Your task to perform on an android device: Go to CNN.com Image 0: 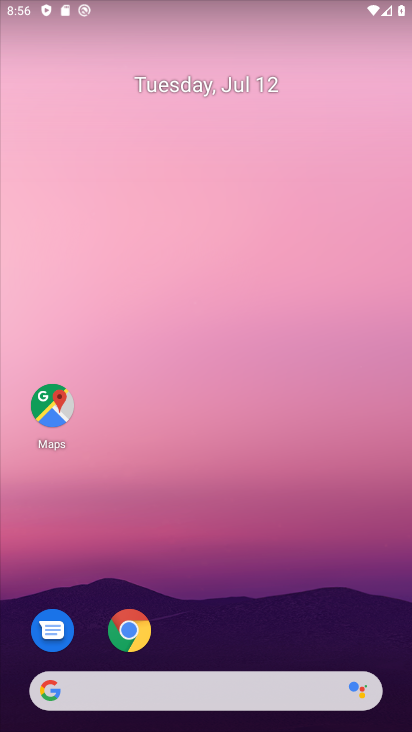
Step 0: drag from (278, 640) to (254, 158)
Your task to perform on an android device: Go to CNN.com Image 1: 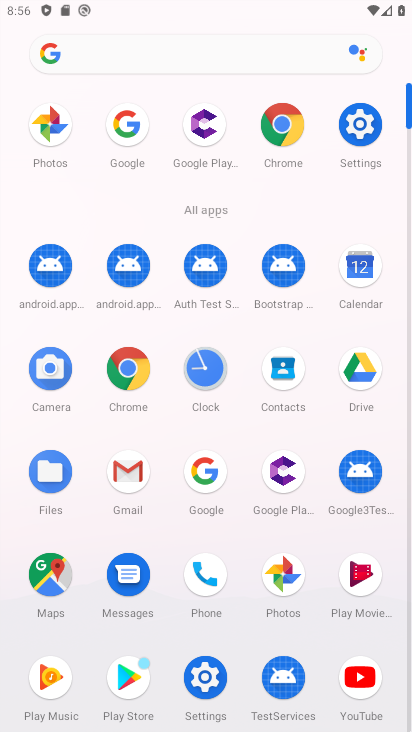
Step 1: click (283, 122)
Your task to perform on an android device: Go to CNN.com Image 2: 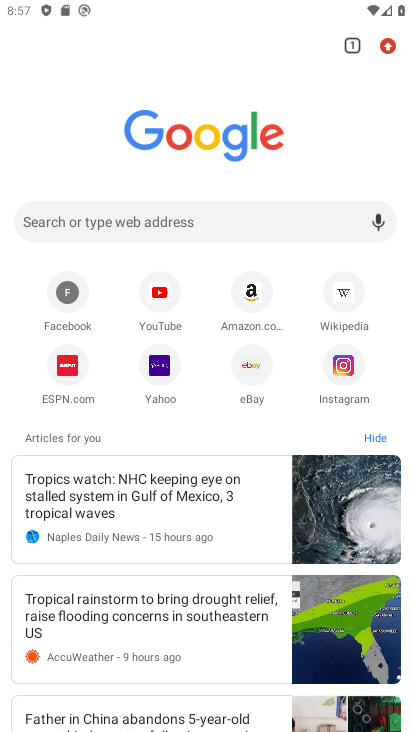
Step 2: click (208, 217)
Your task to perform on an android device: Go to CNN.com Image 3: 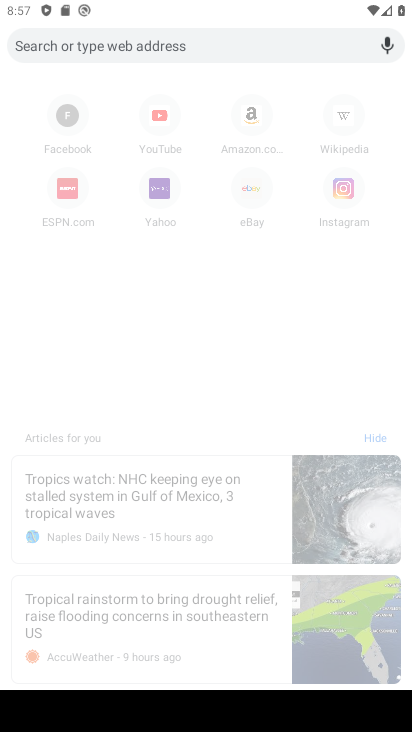
Step 3: type "cnn.com"
Your task to perform on an android device: Go to CNN.com Image 4: 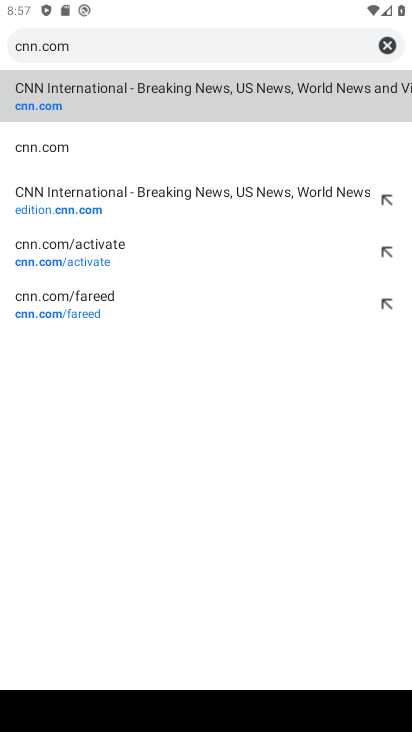
Step 4: click (45, 100)
Your task to perform on an android device: Go to CNN.com Image 5: 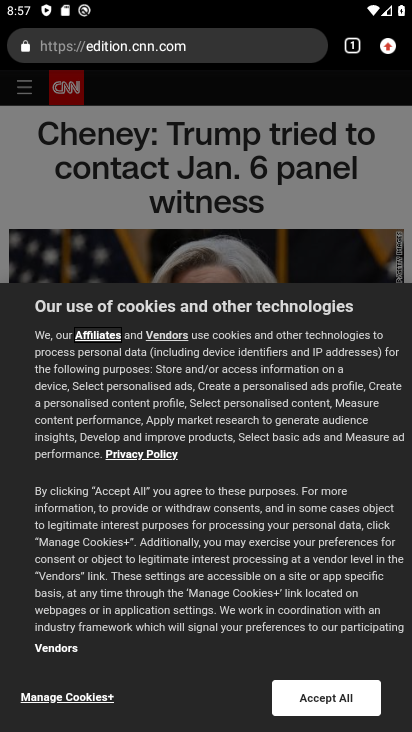
Step 5: task complete